Your task to perform on an android device: move an email to a new category in the gmail app Image 0: 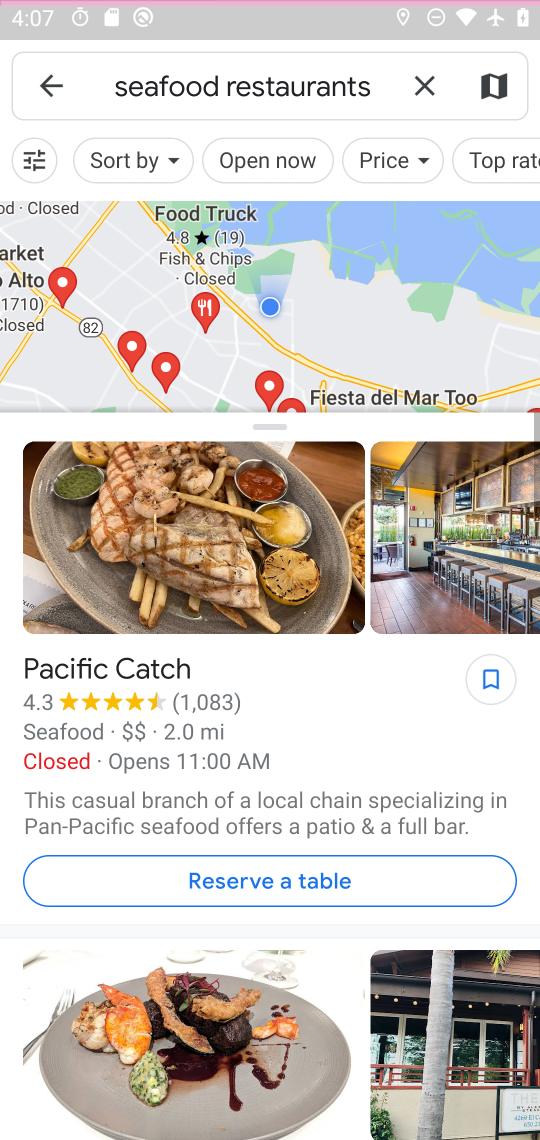
Step 0: press home button
Your task to perform on an android device: move an email to a new category in the gmail app Image 1: 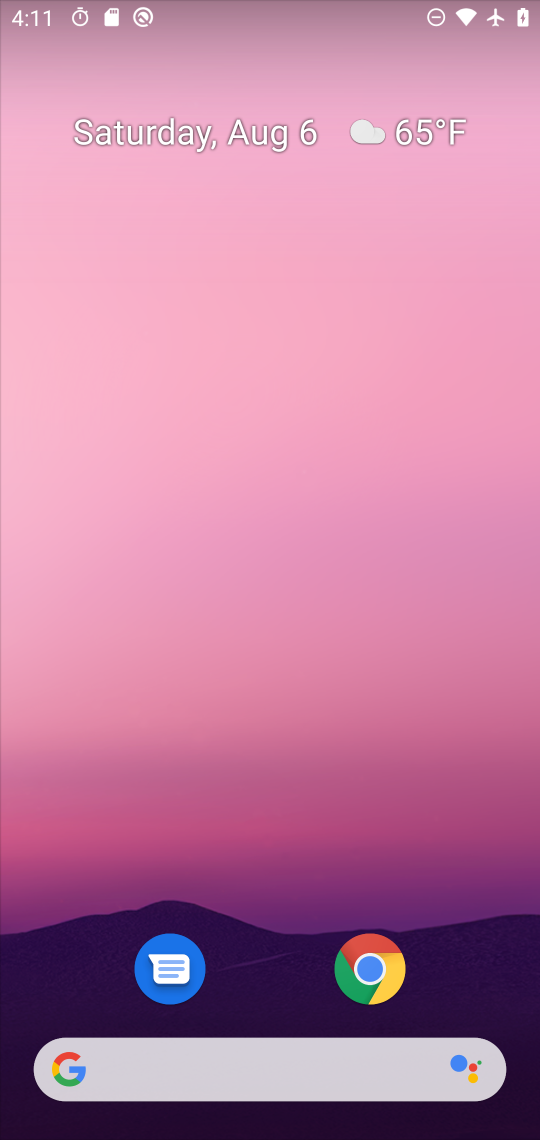
Step 1: press home button
Your task to perform on an android device: move an email to a new category in the gmail app Image 2: 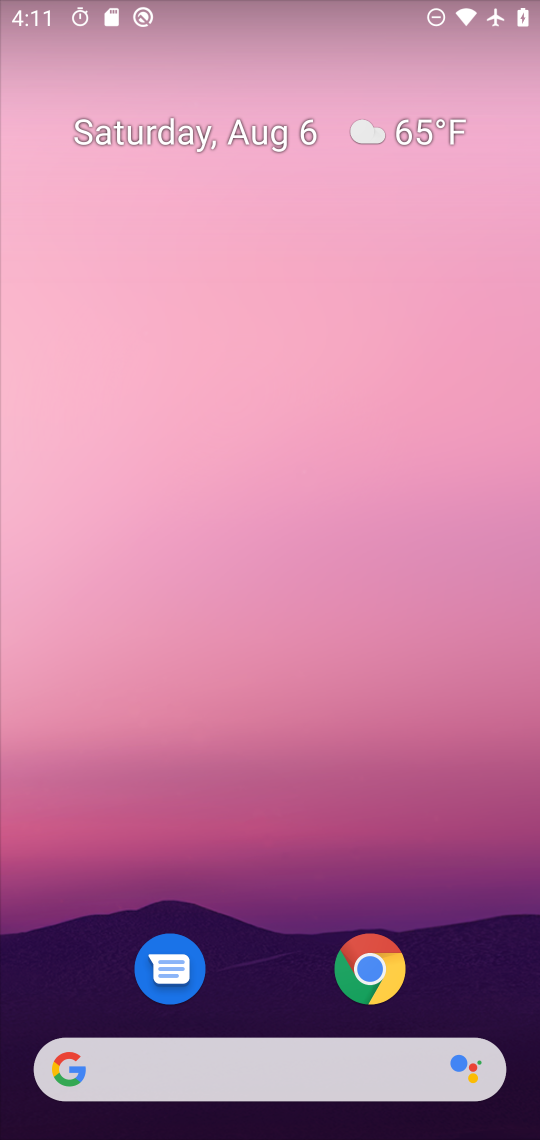
Step 2: drag from (273, 968) to (346, 198)
Your task to perform on an android device: move an email to a new category in the gmail app Image 3: 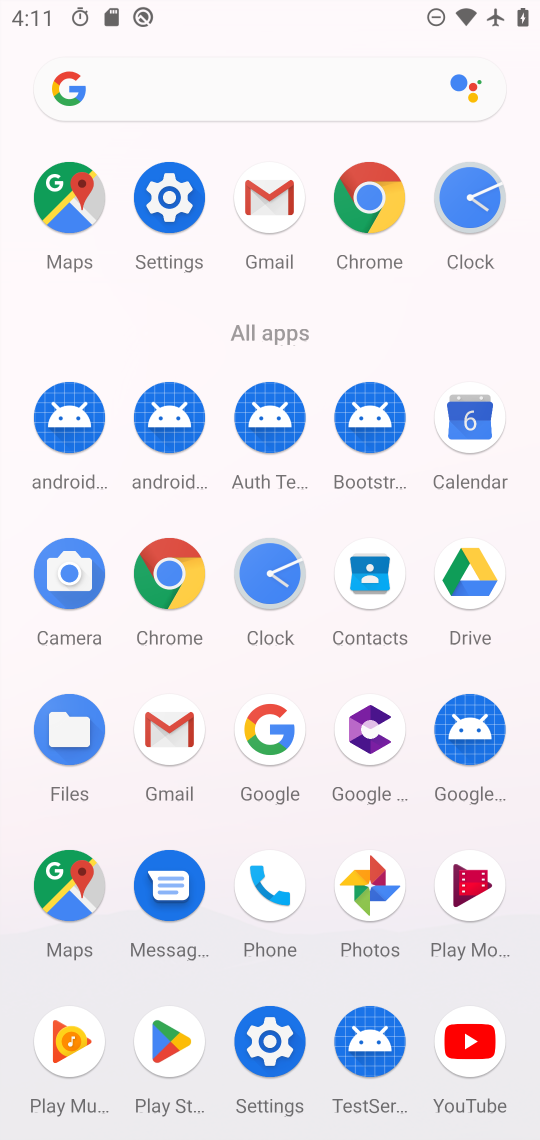
Step 3: press home button
Your task to perform on an android device: move an email to a new category in the gmail app Image 4: 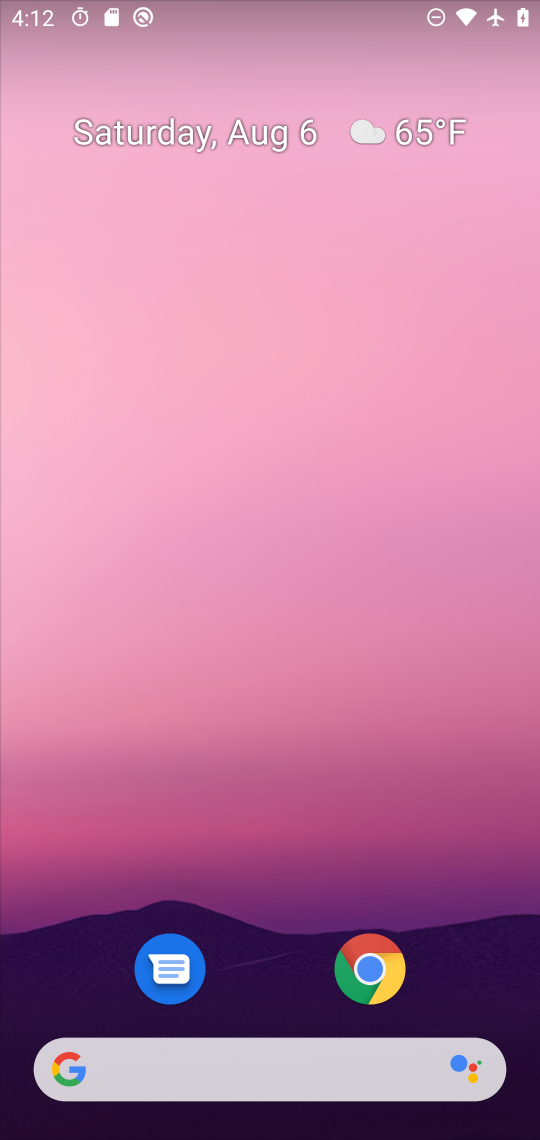
Step 4: press home button
Your task to perform on an android device: move an email to a new category in the gmail app Image 5: 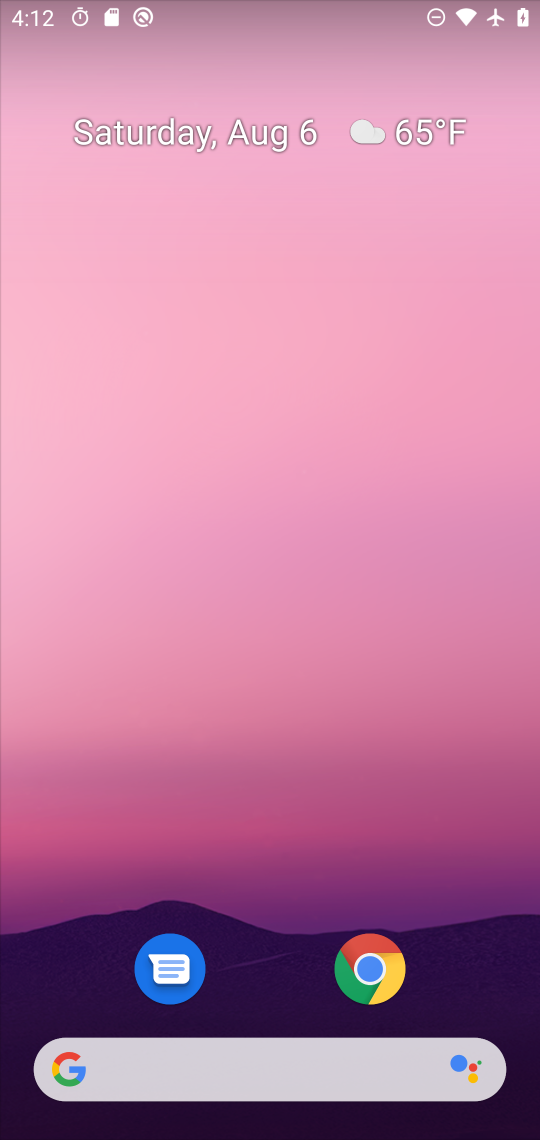
Step 5: press home button
Your task to perform on an android device: move an email to a new category in the gmail app Image 6: 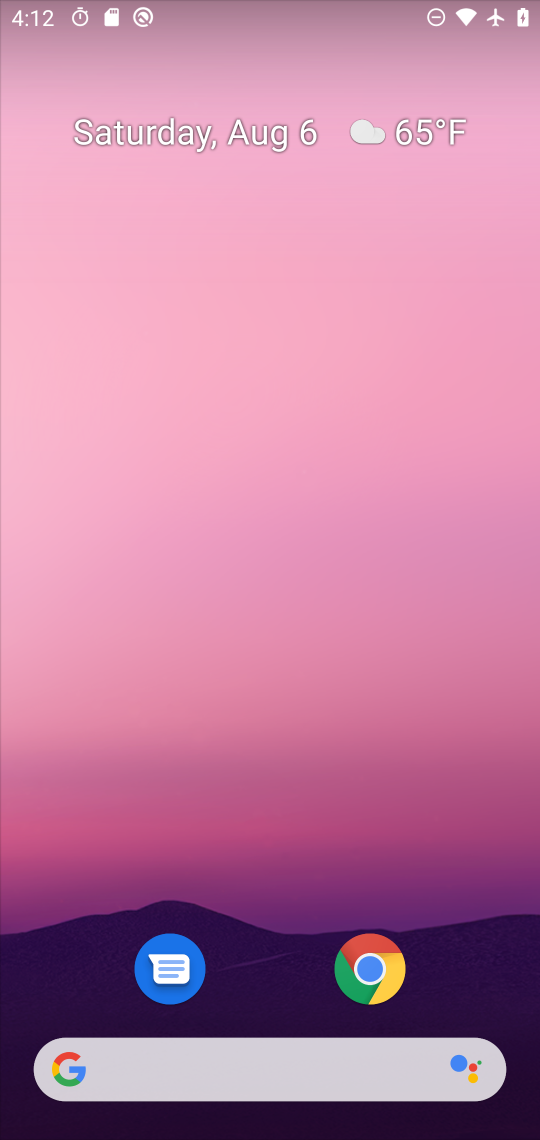
Step 6: drag from (286, 965) to (211, 186)
Your task to perform on an android device: move an email to a new category in the gmail app Image 7: 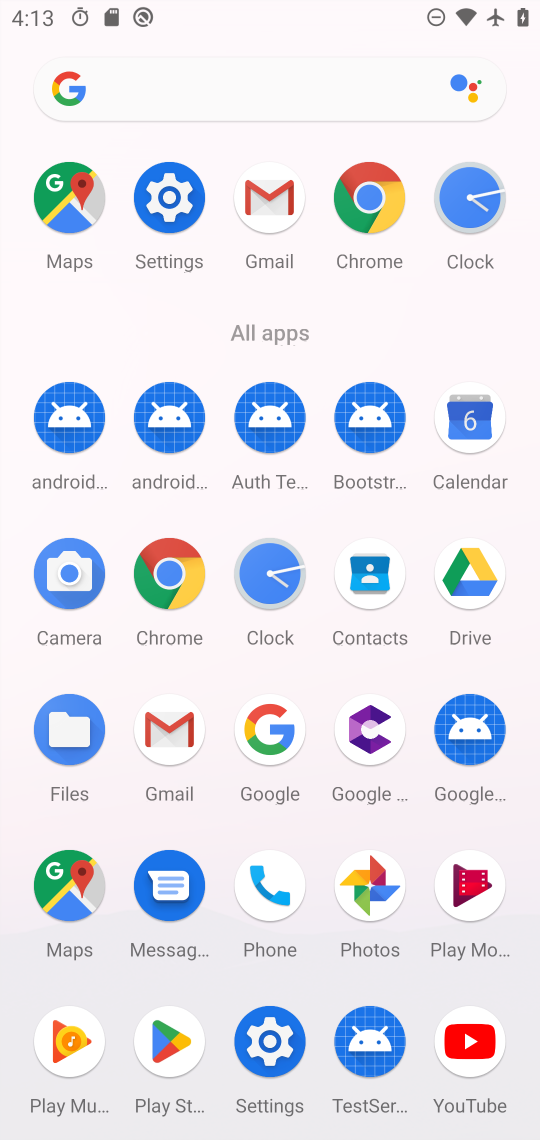
Step 7: click (273, 194)
Your task to perform on an android device: move an email to a new category in the gmail app Image 8: 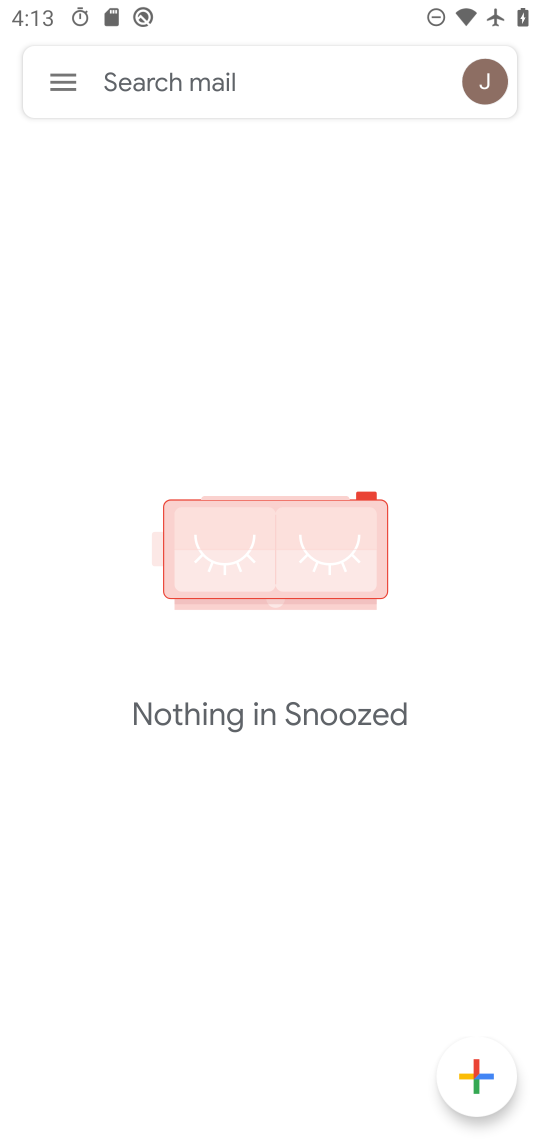
Step 8: click (61, 87)
Your task to perform on an android device: move an email to a new category in the gmail app Image 9: 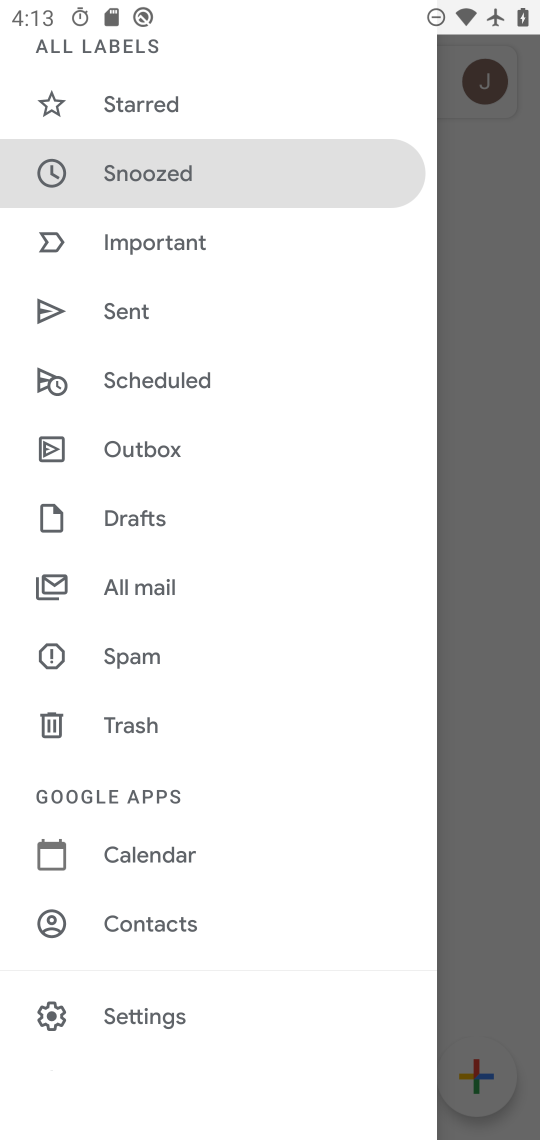
Step 9: click (126, 594)
Your task to perform on an android device: move an email to a new category in the gmail app Image 10: 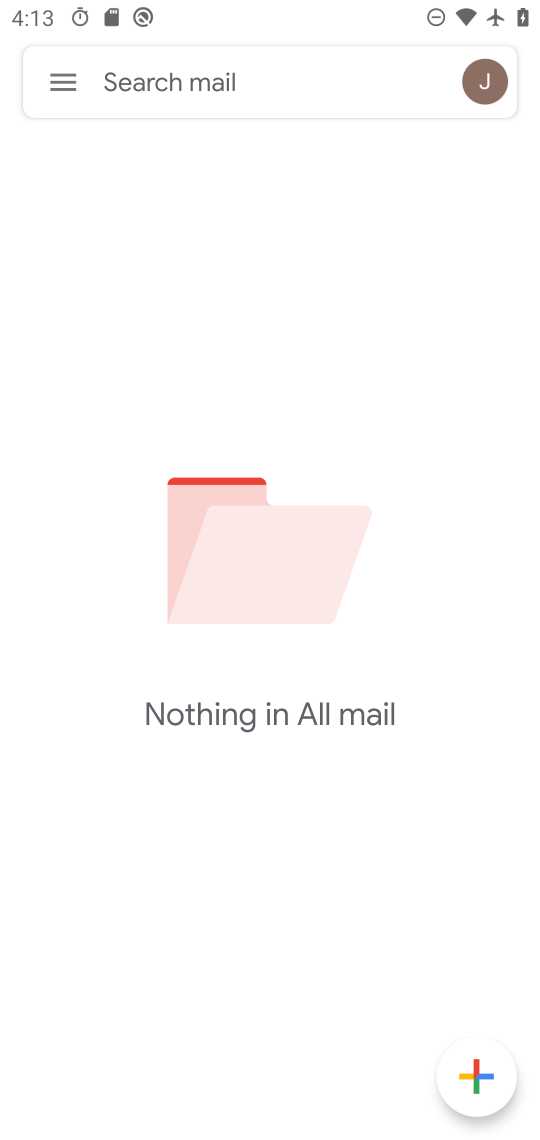
Step 10: click (66, 86)
Your task to perform on an android device: move an email to a new category in the gmail app Image 11: 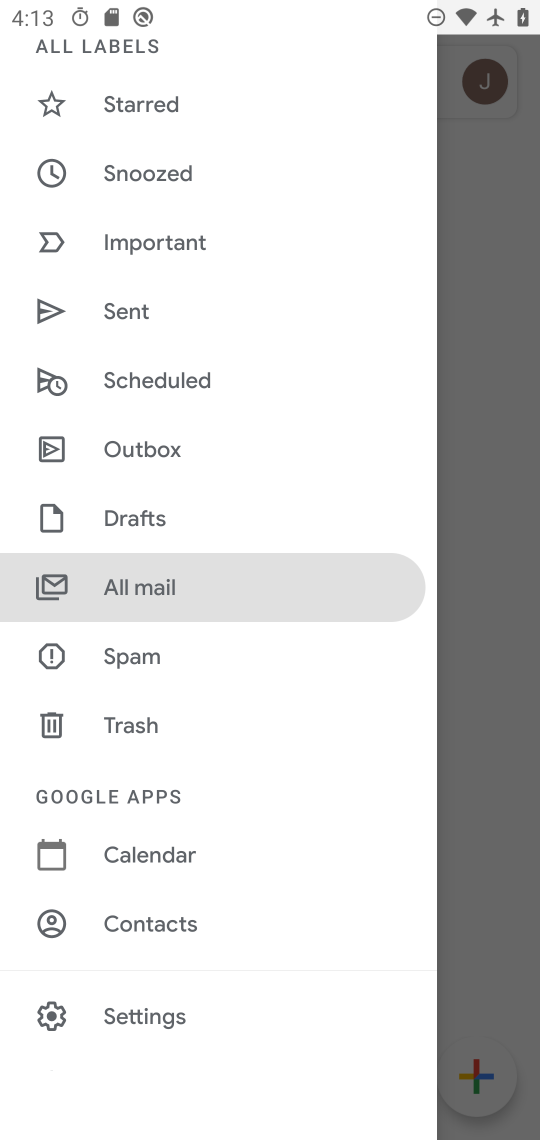
Step 11: click (501, 217)
Your task to perform on an android device: move an email to a new category in the gmail app Image 12: 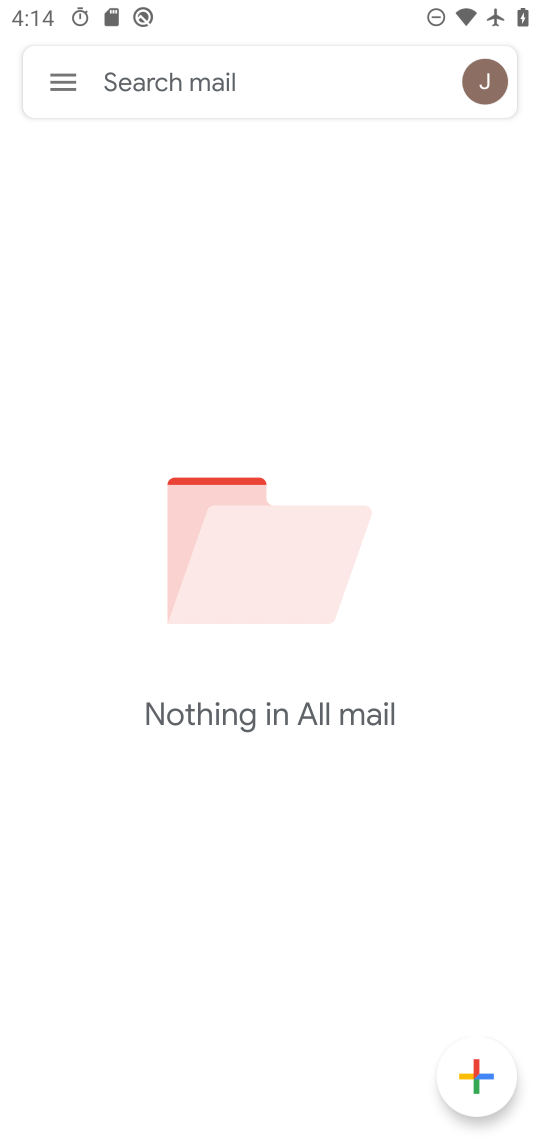
Step 12: click (50, 80)
Your task to perform on an android device: move an email to a new category in the gmail app Image 13: 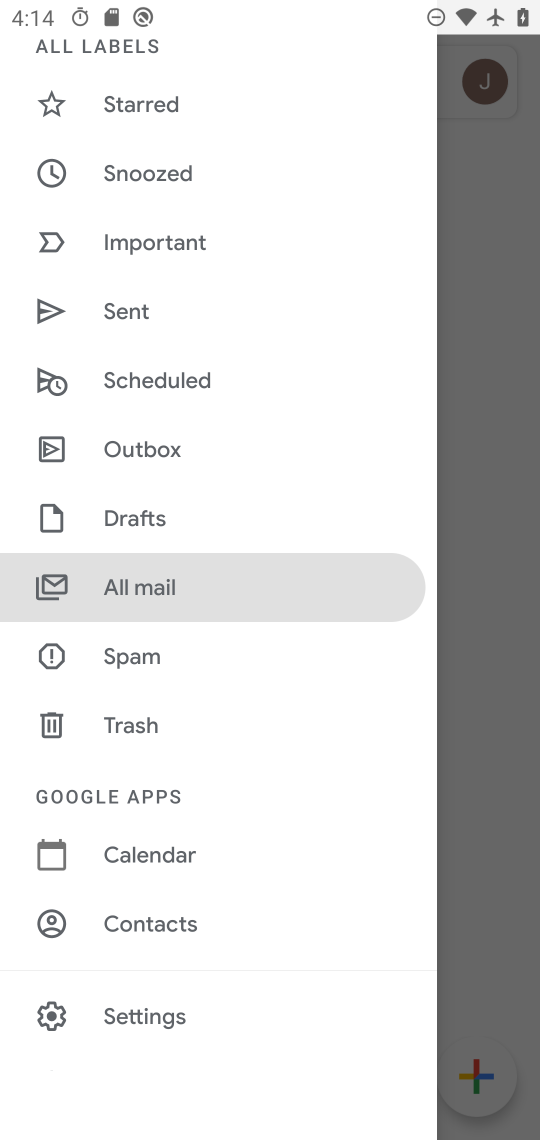
Step 13: click (490, 218)
Your task to perform on an android device: move an email to a new category in the gmail app Image 14: 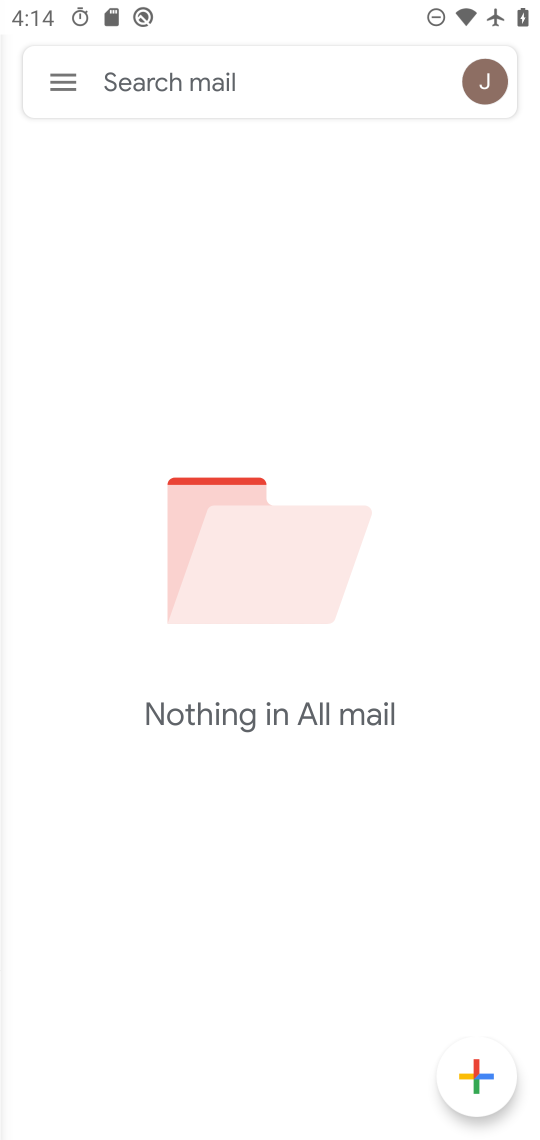
Step 14: task complete